Your task to perform on an android device: add a contact Image 0: 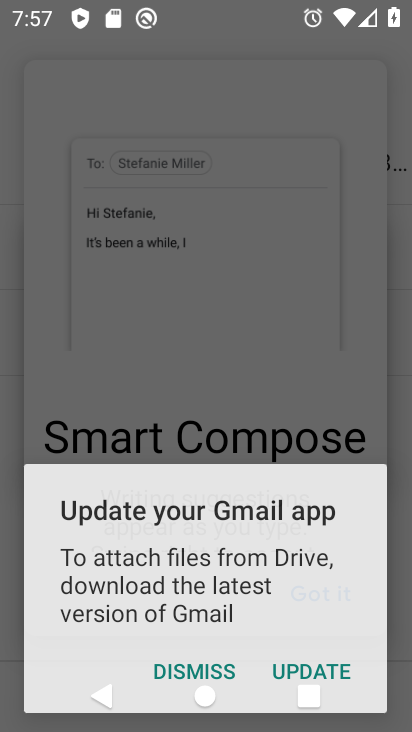
Step 0: press home button
Your task to perform on an android device: add a contact Image 1: 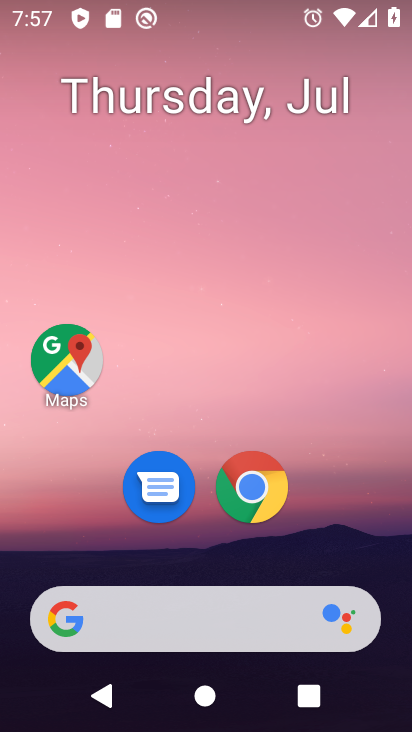
Step 1: drag from (286, 613) to (223, 117)
Your task to perform on an android device: add a contact Image 2: 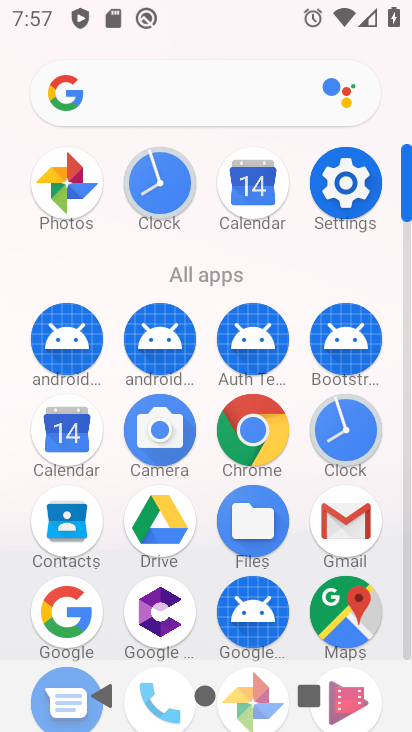
Step 2: click (74, 544)
Your task to perform on an android device: add a contact Image 3: 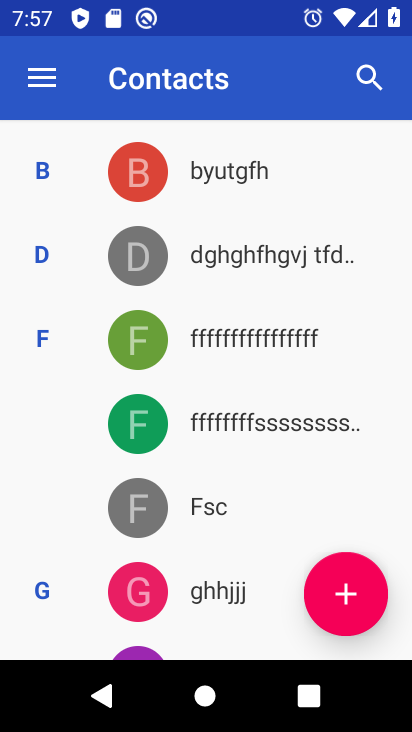
Step 3: click (356, 589)
Your task to perform on an android device: add a contact Image 4: 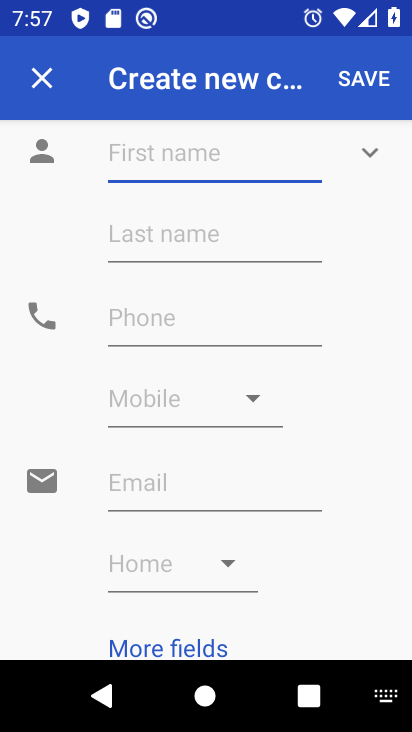
Step 4: type "kgfghfgdf"
Your task to perform on an android device: add a contact Image 5: 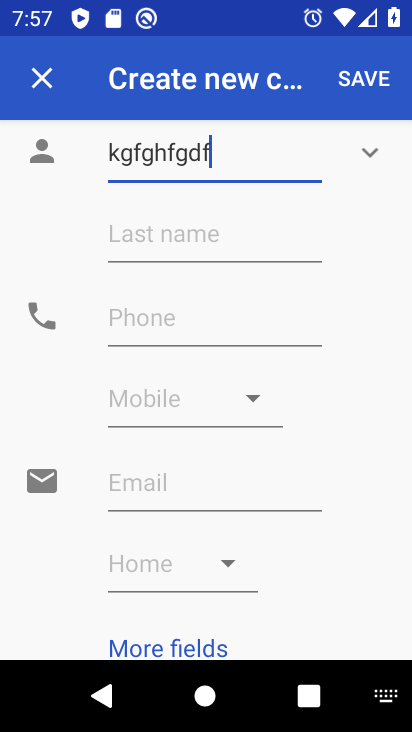
Step 5: type ""
Your task to perform on an android device: add a contact Image 6: 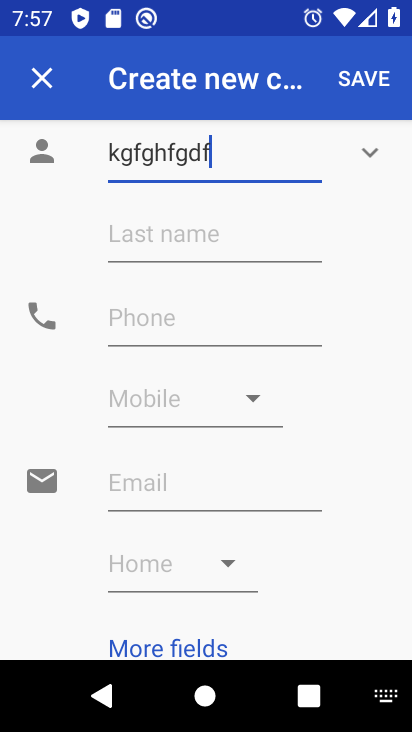
Step 6: click (155, 331)
Your task to perform on an android device: add a contact Image 7: 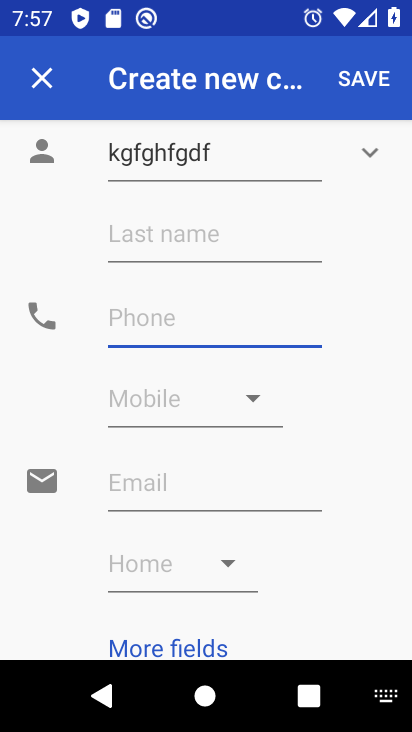
Step 7: type "89767564"
Your task to perform on an android device: add a contact Image 8: 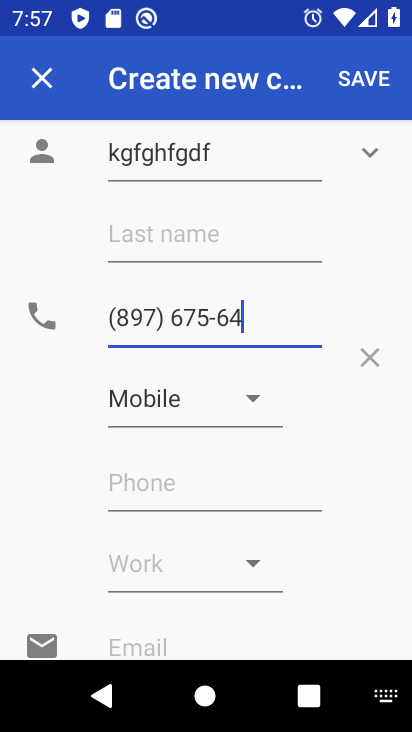
Step 8: type ""
Your task to perform on an android device: add a contact Image 9: 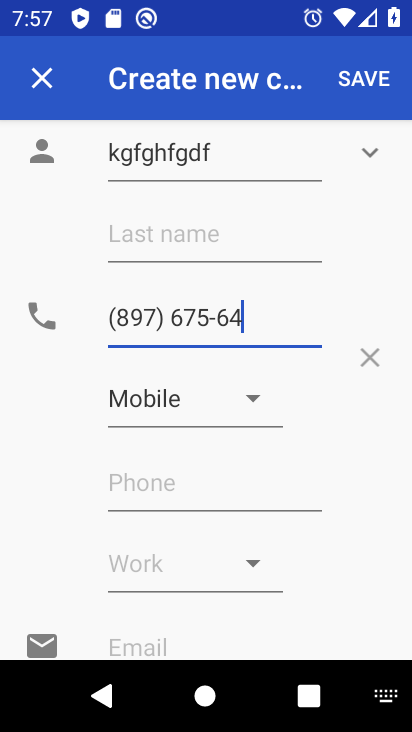
Step 9: click (368, 86)
Your task to perform on an android device: add a contact Image 10: 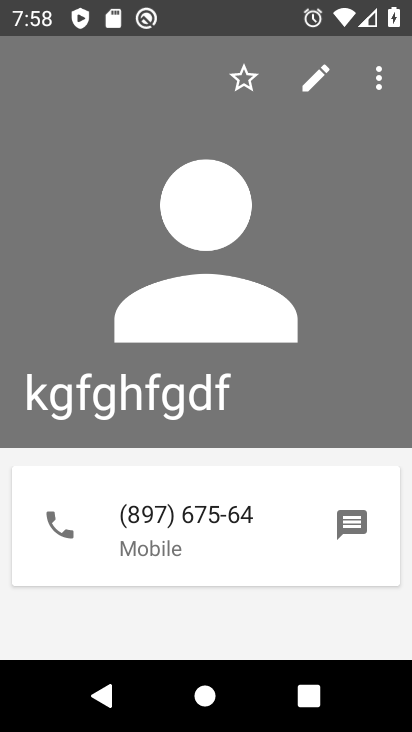
Step 10: task complete